Your task to perform on an android device: Toggle the flashlight Image 0: 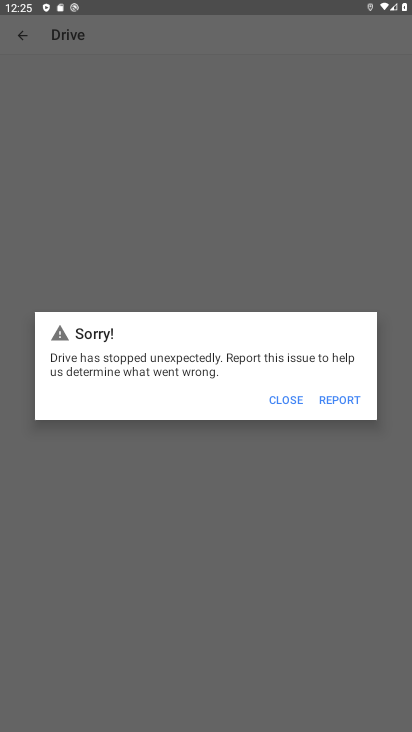
Step 0: press back button
Your task to perform on an android device: Toggle the flashlight Image 1: 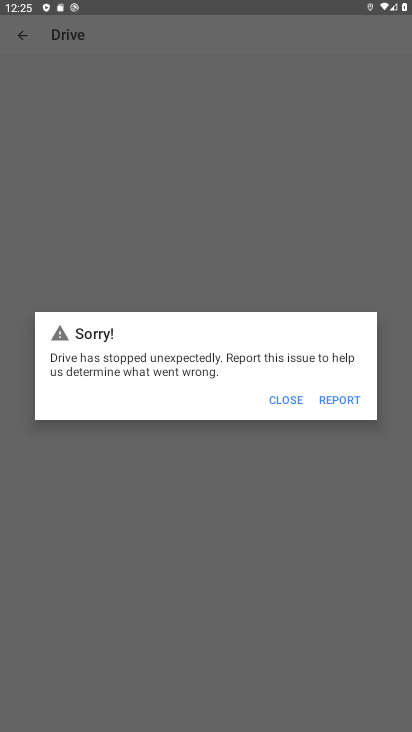
Step 1: press home button
Your task to perform on an android device: Toggle the flashlight Image 2: 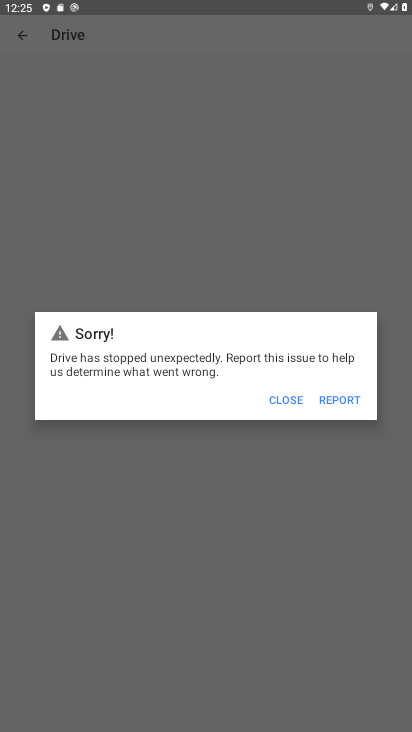
Step 2: click (57, 77)
Your task to perform on an android device: Toggle the flashlight Image 3: 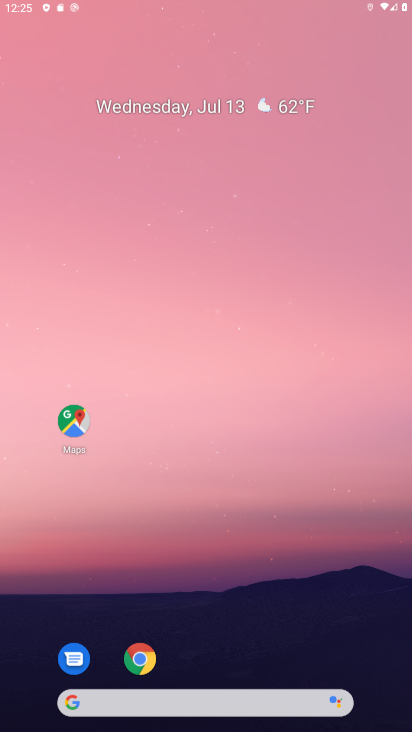
Step 3: click (264, 391)
Your task to perform on an android device: Toggle the flashlight Image 4: 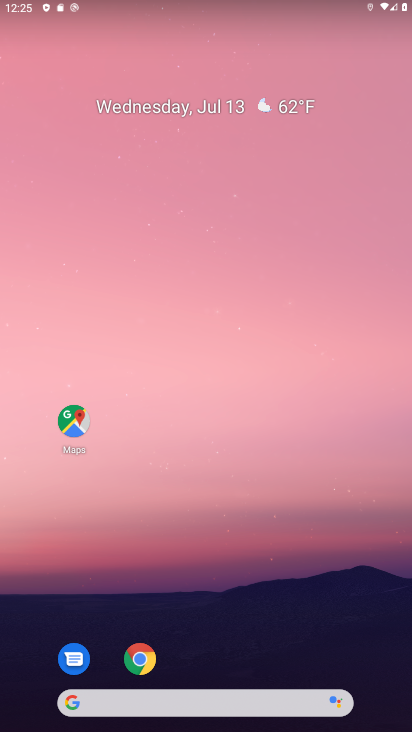
Step 4: task complete